Your task to perform on an android device: Is it going to rain tomorrow? Image 0: 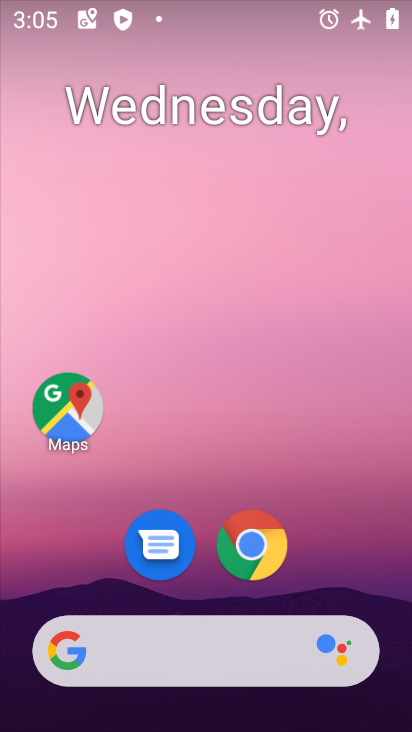
Step 0: click (253, 545)
Your task to perform on an android device: Is it going to rain tomorrow? Image 1: 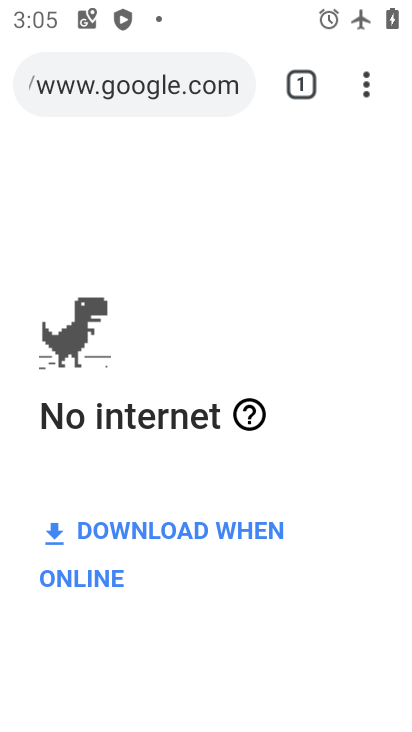
Step 1: click (194, 92)
Your task to perform on an android device: Is it going to rain tomorrow? Image 2: 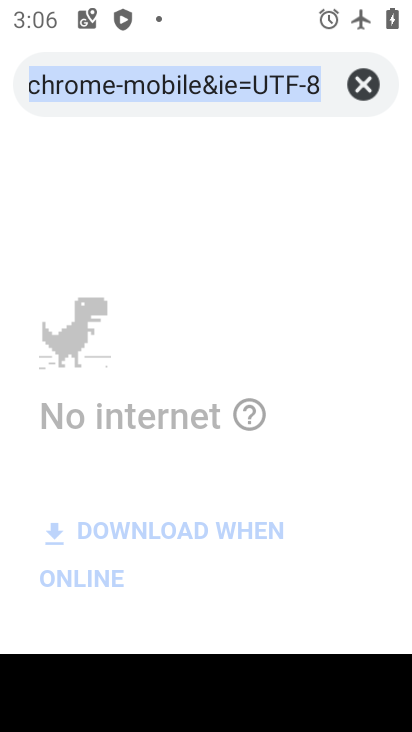
Step 2: type "weather"
Your task to perform on an android device: Is it going to rain tomorrow? Image 3: 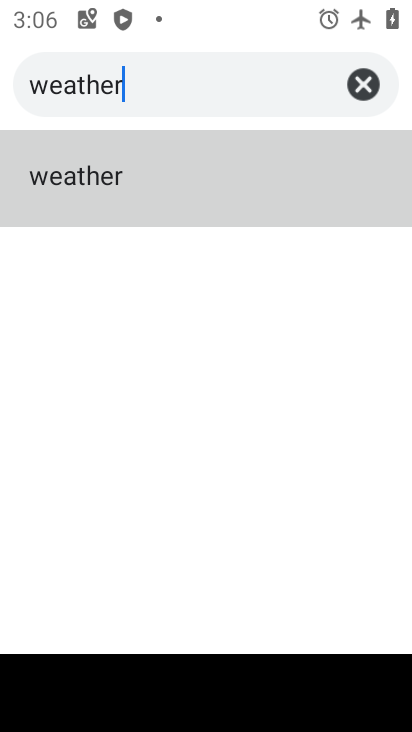
Step 3: click (80, 164)
Your task to perform on an android device: Is it going to rain tomorrow? Image 4: 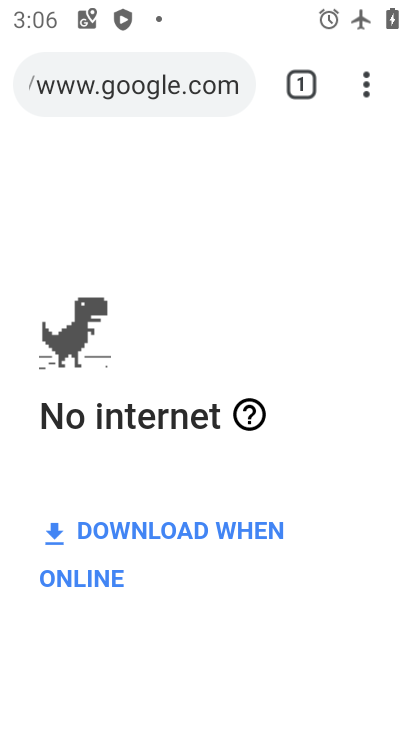
Step 4: task complete